Your task to perform on an android device: turn vacation reply on in the gmail app Image 0: 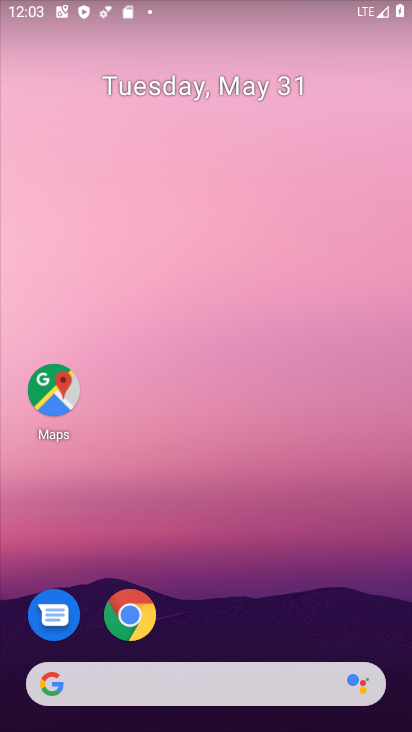
Step 0: drag from (248, 627) to (353, 77)
Your task to perform on an android device: turn vacation reply on in the gmail app Image 1: 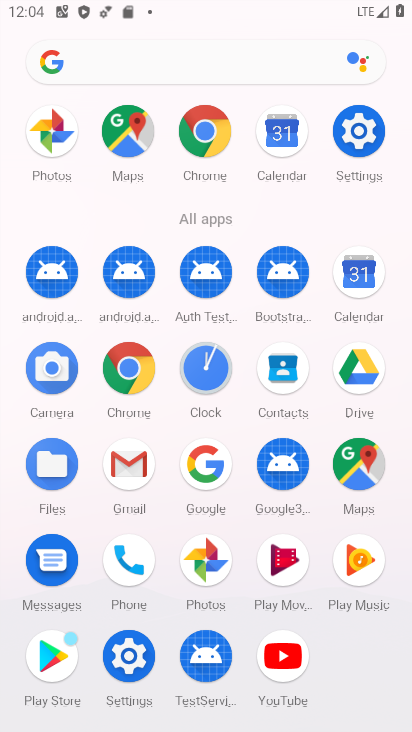
Step 1: click (136, 475)
Your task to perform on an android device: turn vacation reply on in the gmail app Image 2: 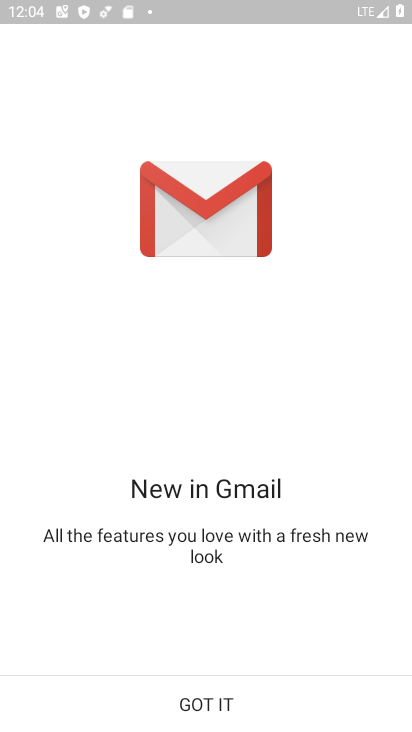
Step 2: click (226, 707)
Your task to perform on an android device: turn vacation reply on in the gmail app Image 3: 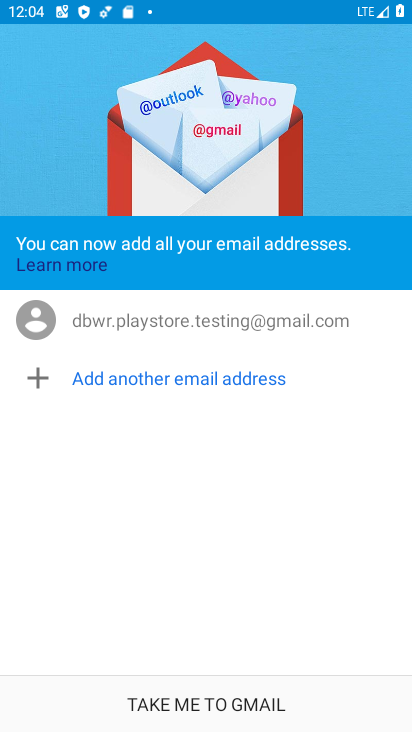
Step 3: click (229, 706)
Your task to perform on an android device: turn vacation reply on in the gmail app Image 4: 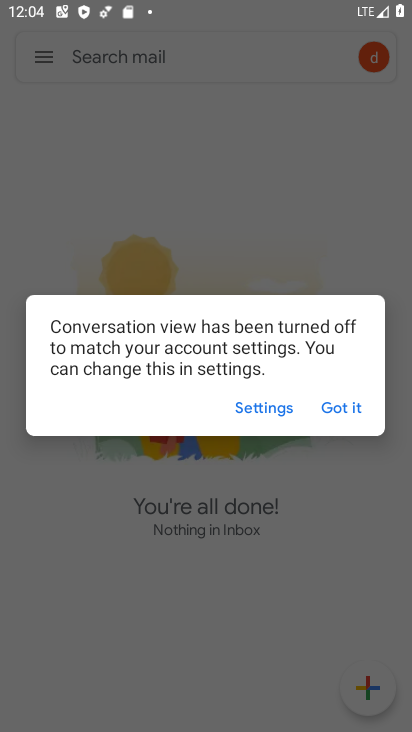
Step 4: click (273, 412)
Your task to perform on an android device: turn vacation reply on in the gmail app Image 5: 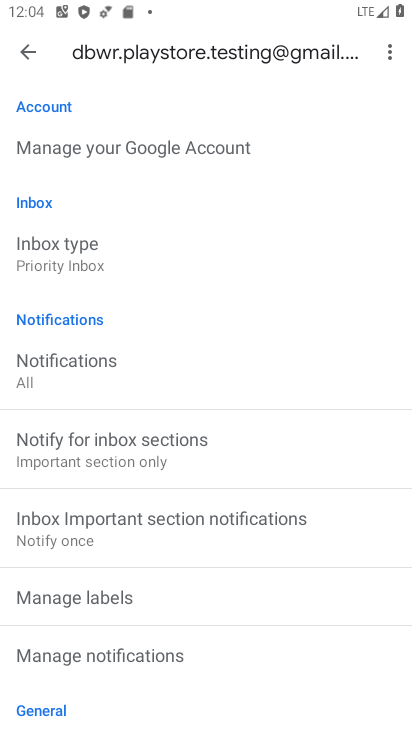
Step 5: drag from (132, 592) to (171, 114)
Your task to perform on an android device: turn vacation reply on in the gmail app Image 6: 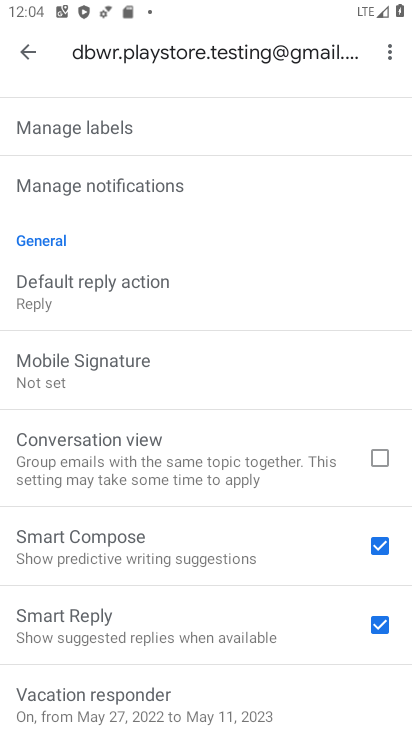
Step 6: drag from (179, 660) to (227, 393)
Your task to perform on an android device: turn vacation reply on in the gmail app Image 7: 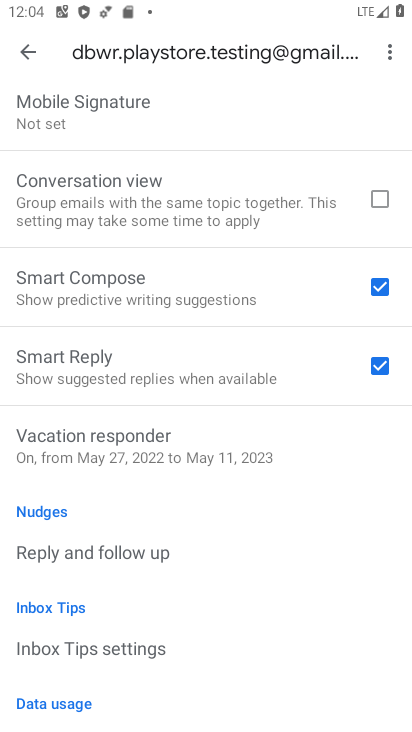
Step 7: click (191, 461)
Your task to perform on an android device: turn vacation reply on in the gmail app Image 8: 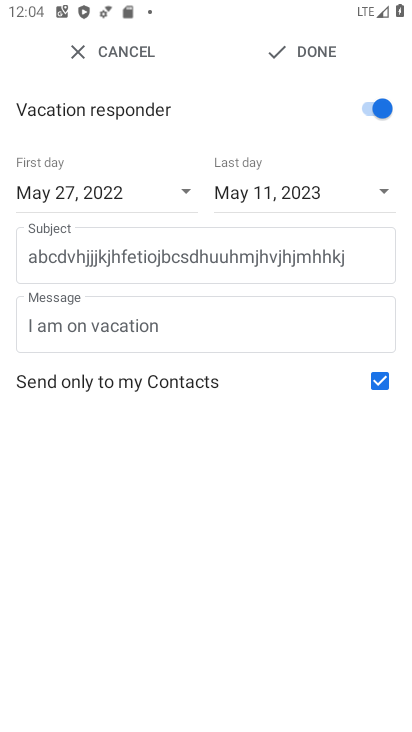
Step 8: task complete